Your task to perform on an android device: turn on showing notifications on the lock screen Image 0: 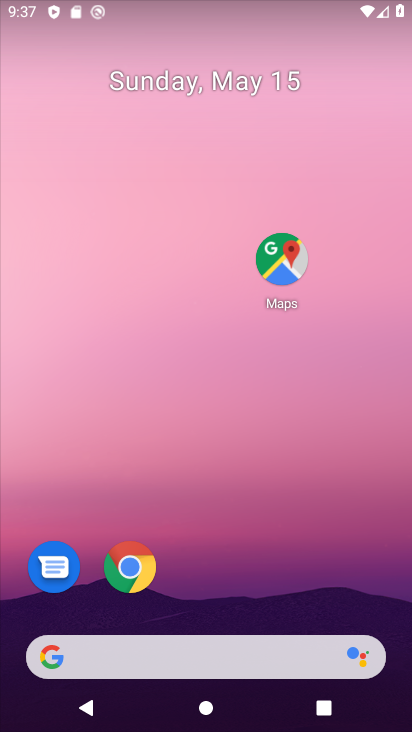
Step 0: drag from (199, 584) to (206, 122)
Your task to perform on an android device: turn on showing notifications on the lock screen Image 1: 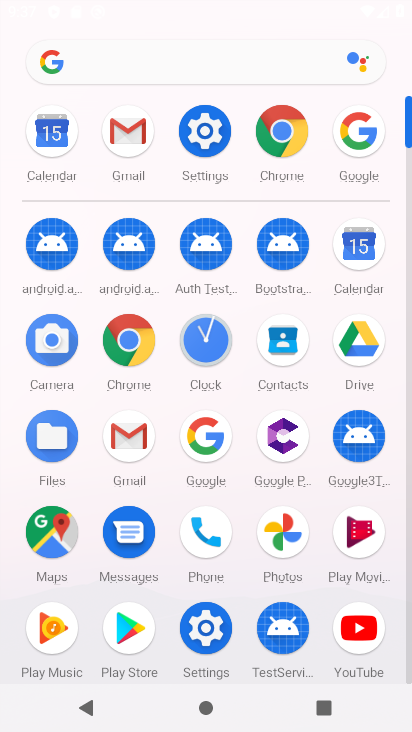
Step 1: click (207, 130)
Your task to perform on an android device: turn on showing notifications on the lock screen Image 2: 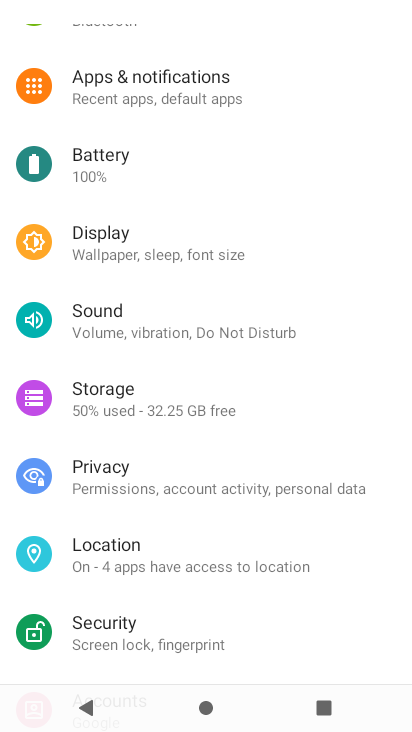
Step 2: drag from (169, 179) to (196, 398)
Your task to perform on an android device: turn on showing notifications on the lock screen Image 3: 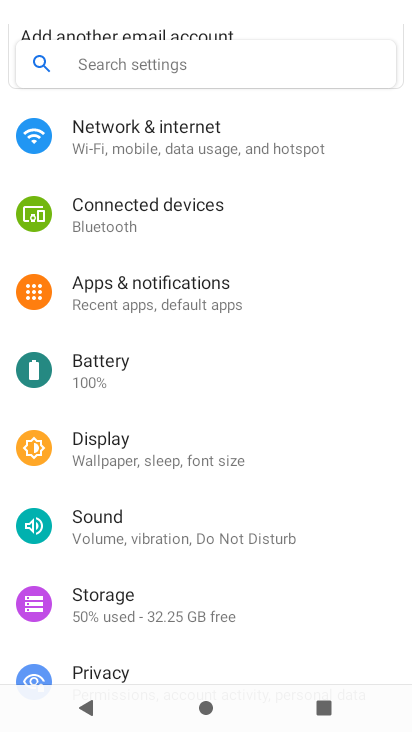
Step 3: drag from (175, 546) to (165, 440)
Your task to perform on an android device: turn on showing notifications on the lock screen Image 4: 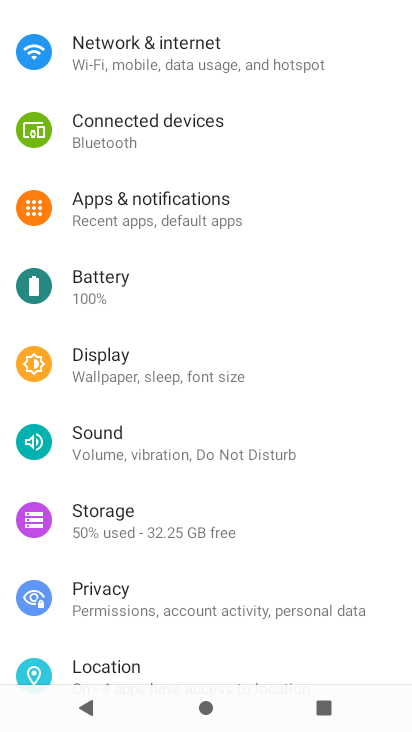
Step 4: click (170, 228)
Your task to perform on an android device: turn on showing notifications on the lock screen Image 5: 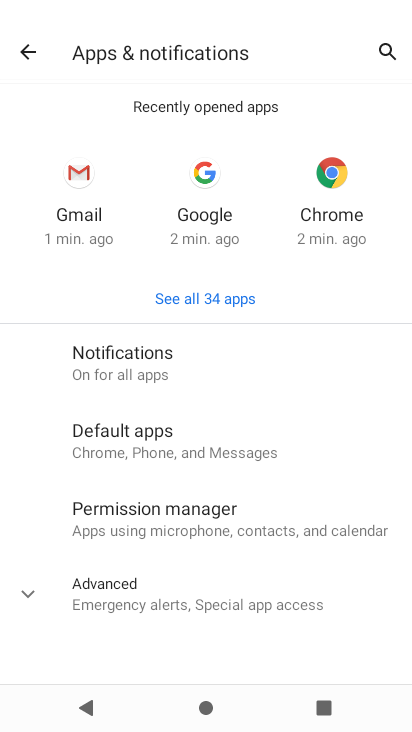
Step 5: click (164, 349)
Your task to perform on an android device: turn on showing notifications on the lock screen Image 6: 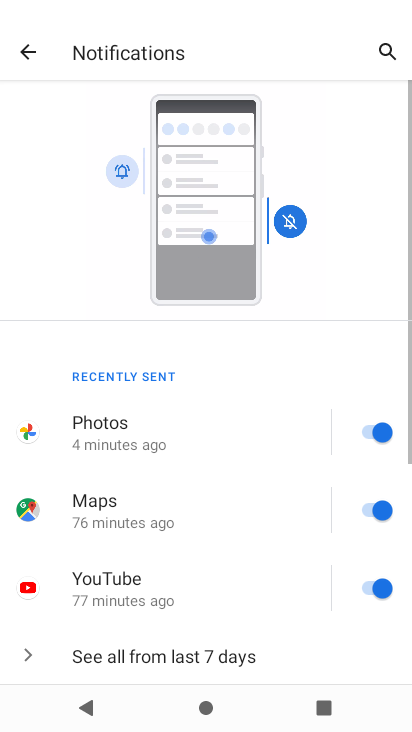
Step 6: drag from (184, 525) to (163, 74)
Your task to perform on an android device: turn on showing notifications on the lock screen Image 7: 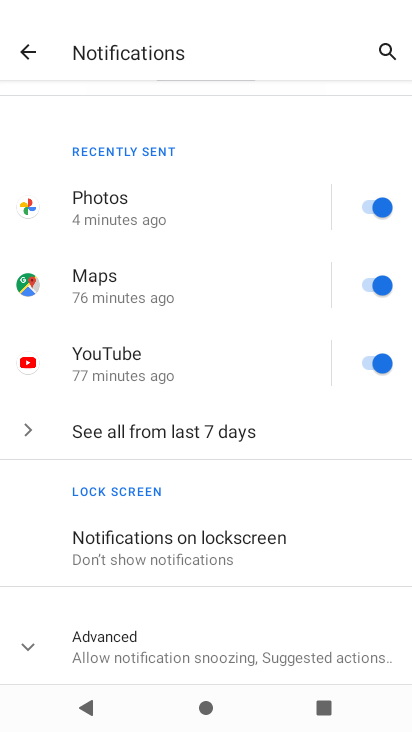
Step 7: click (137, 559)
Your task to perform on an android device: turn on showing notifications on the lock screen Image 8: 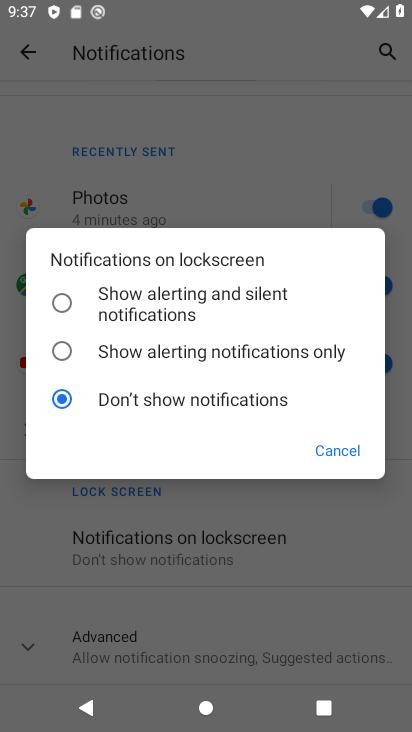
Step 8: click (64, 300)
Your task to perform on an android device: turn on showing notifications on the lock screen Image 9: 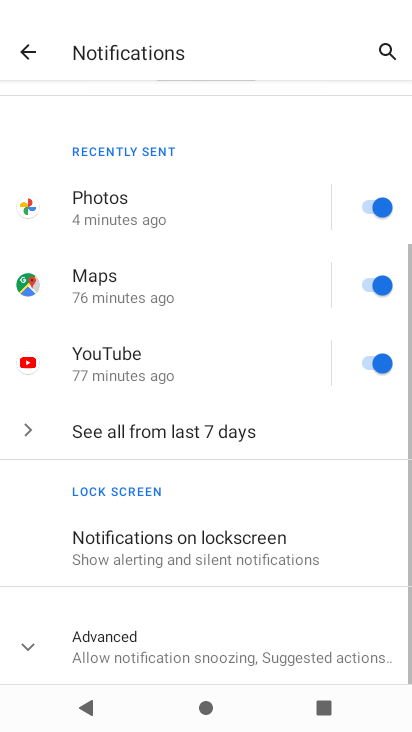
Step 9: task complete